Your task to perform on an android device: Open the calculator Image 0: 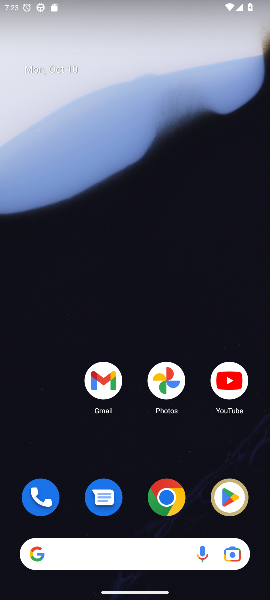
Step 0: drag from (130, 472) to (149, 112)
Your task to perform on an android device: Open the calculator Image 1: 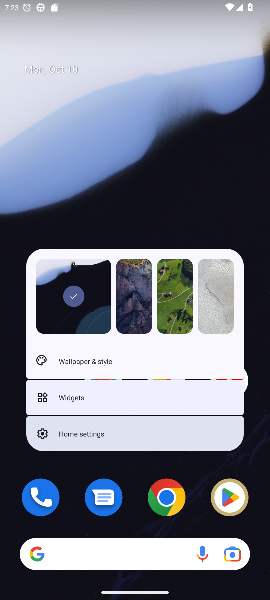
Step 1: click (119, 141)
Your task to perform on an android device: Open the calculator Image 2: 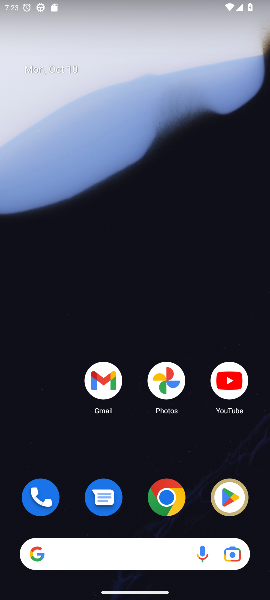
Step 2: drag from (57, 470) to (104, 234)
Your task to perform on an android device: Open the calculator Image 3: 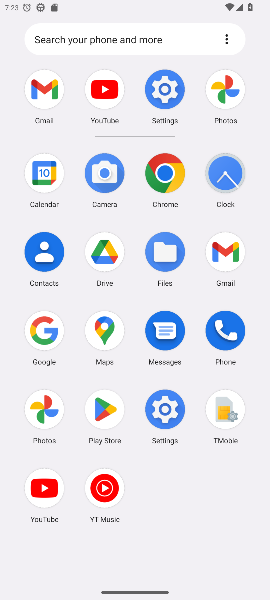
Step 3: click (44, 329)
Your task to perform on an android device: Open the calculator Image 4: 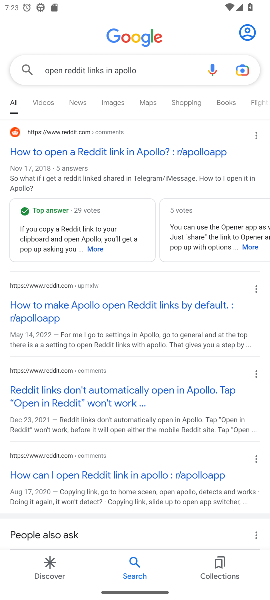
Step 4: click (155, 66)
Your task to perform on an android device: Open the calculator Image 5: 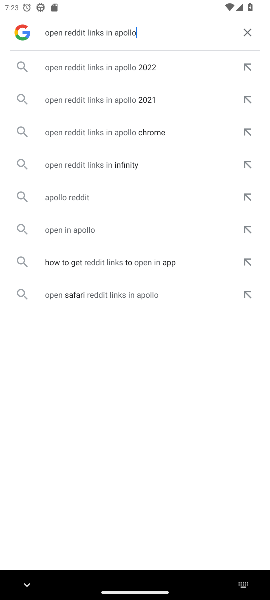
Step 5: click (252, 33)
Your task to perform on an android device: Open the calculator Image 6: 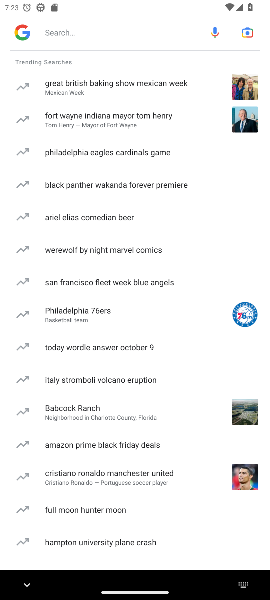
Step 6: click (130, 29)
Your task to perform on an android device: Open the calculator Image 7: 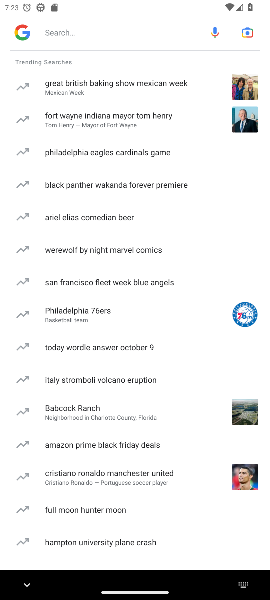
Step 7: press home button
Your task to perform on an android device: Open the calculator Image 8: 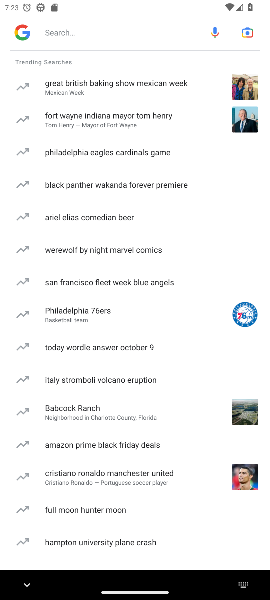
Step 8: type "Open the calculator "
Your task to perform on an android device: Open the calculator Image 9: 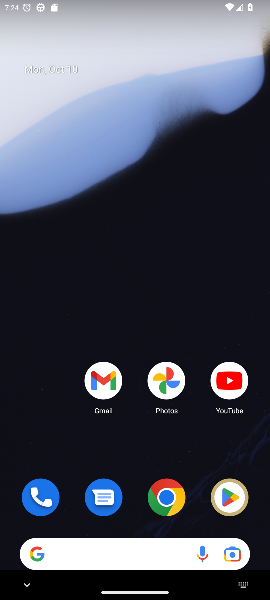
Step 9: drag from (113, 480) to (148, 83)
Your task to perform on an android device: Open the calculator Image 10: 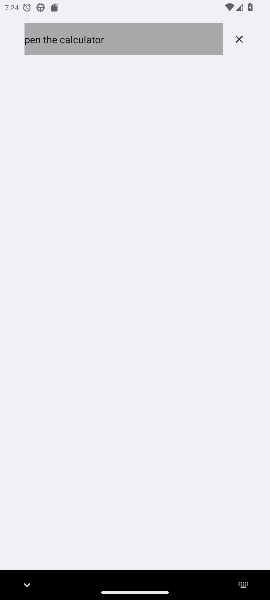
Step 10: click (242, 33)
Your task to perform on an android device: Open the calculator Image 11: 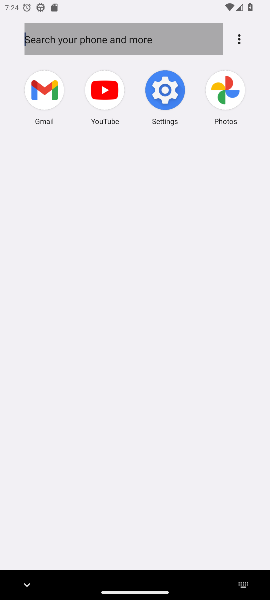
Step 11: press home button
Your task to perform on an android device: Open the calculator Image 12: 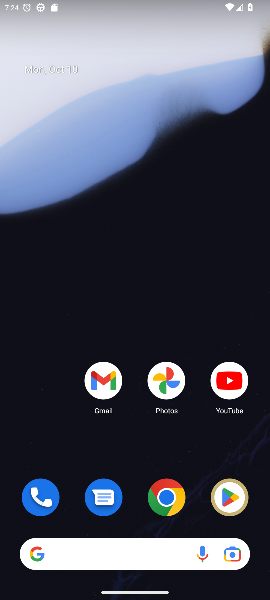
Step 12: drag from (89, 458) to (109, 131)
Your task to perform on an android device: Open the calculator Image 13: 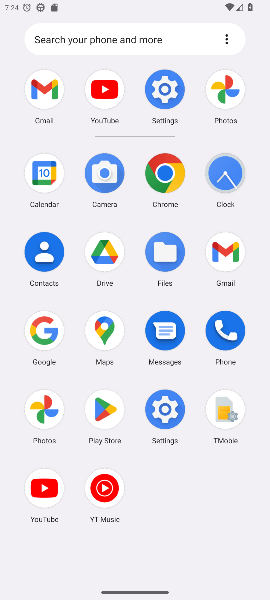
Step 13: click (125, 31)
Your task to perform on an android device: Open the calculator Image 14: 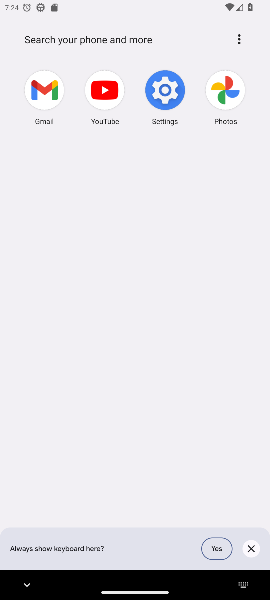
Step 14: type " calculator"
Your task to perform on an android device: Open the calculator Image 15: 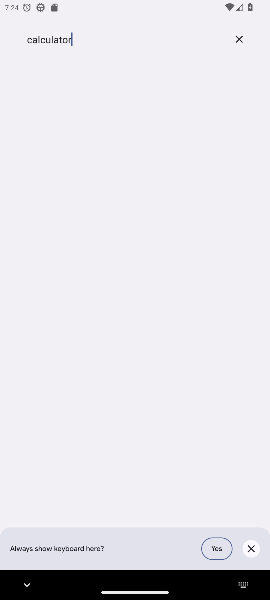
Step 15: click (233, 35)
Your task to perform on an android device: Open the calculator Image 16: 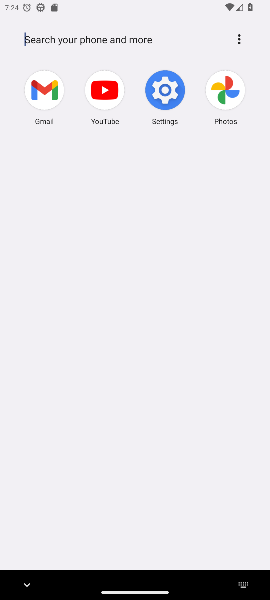
Step 16: press home button
Your task to perform on an android device: Open the calculator Image 17: 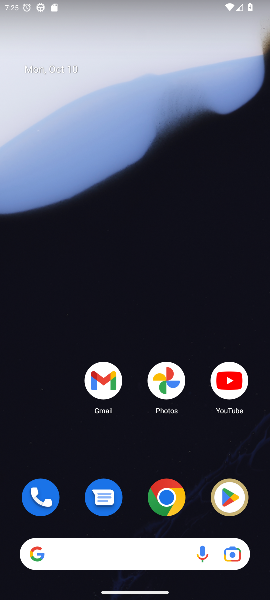
Step 17: drag from (135, 386) to (159, 105)
Your task to perform on an android device: Open the calculator Image 18: 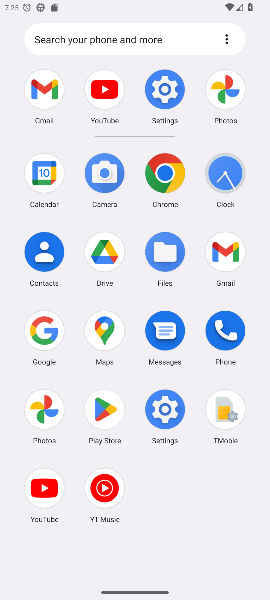
Step 18: click (46, 330)
Your task to perform on an android device: Open the calculator Image 19: 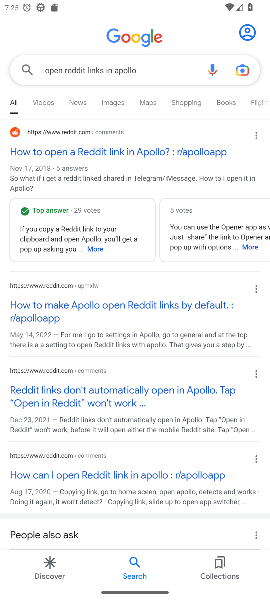
Step 19: click (147, 66)
Your task to perform on an android device: Open the calculator Image 20: 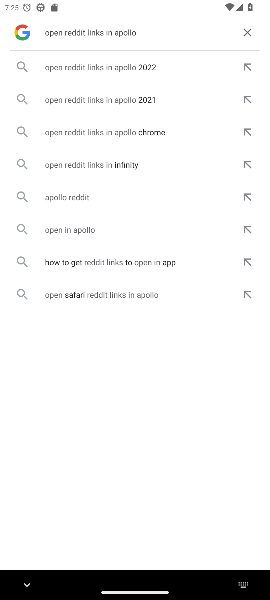
Step 20: click (248, 33)
Your task to perform on an android device: Open the calculator Image 21: 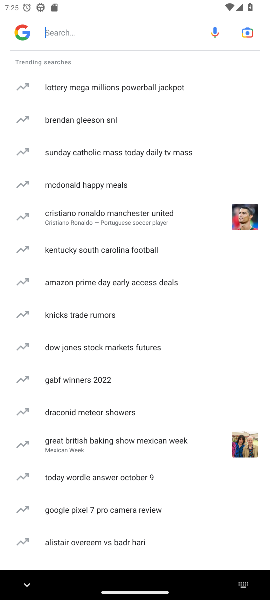
Step 21: click (126, 29)
Your task to perform on an android device: Open the calculator Image 22: 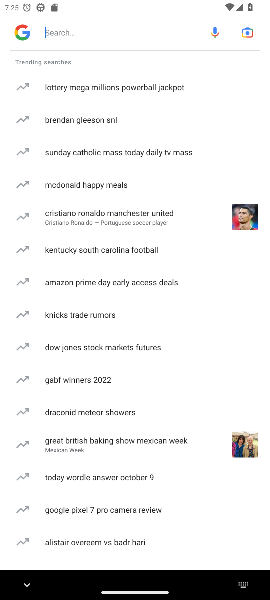
Step 22: type " calculator "
Your task to perform on an android device: Open the calculator Image 23: 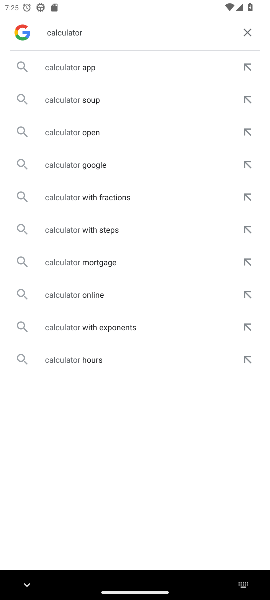
Step 23: click (89, 72)
Your task to perform on an android device: Open the calculator Image 24: 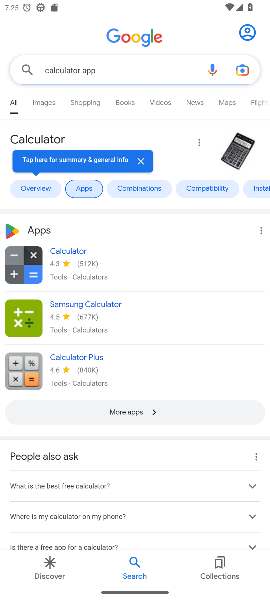
Step 24: click (60, 271)
Your task to perform on an android device: Open the calculator Image 25: 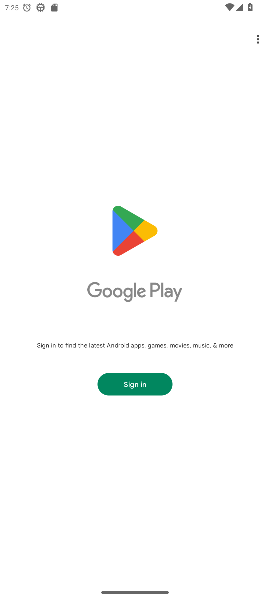
Step 25: click (134, 375)
Your task to perform on an android device: Open the calculator Image 26: 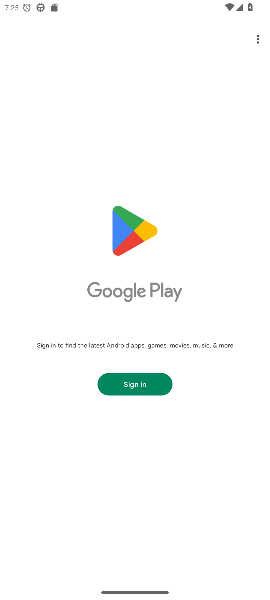
Step 26: click (134, 379)
Your task to perform on an android device: Open the calculator Image 27: 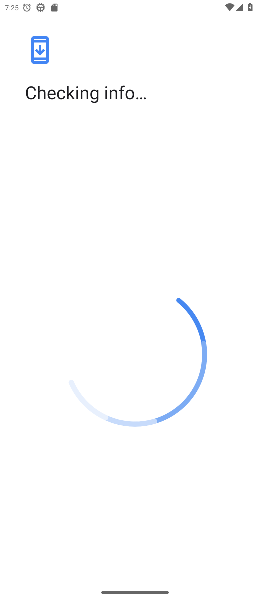
Step 27: task complete